Your task to perform on an android device: What's on my calendar today? Image 0: 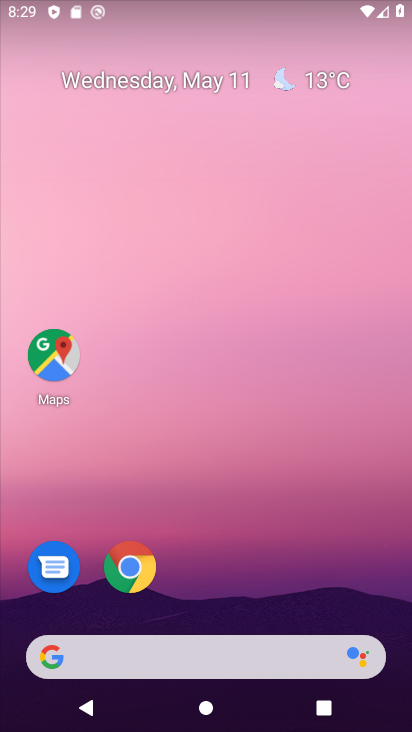
Step 0: drag from (200, 601) to (265, 128)
Your task to perform on an android device: What's on my calendar today? Image 1: 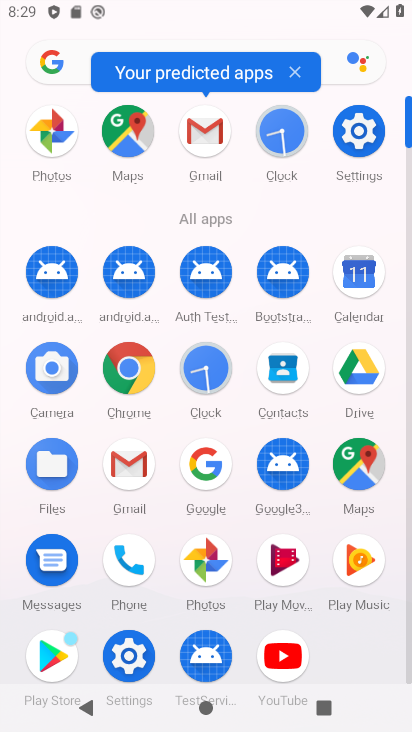
Step 1: click (383, 281)
Your task to perform on an android device: What's on my calendar today? Image 2: 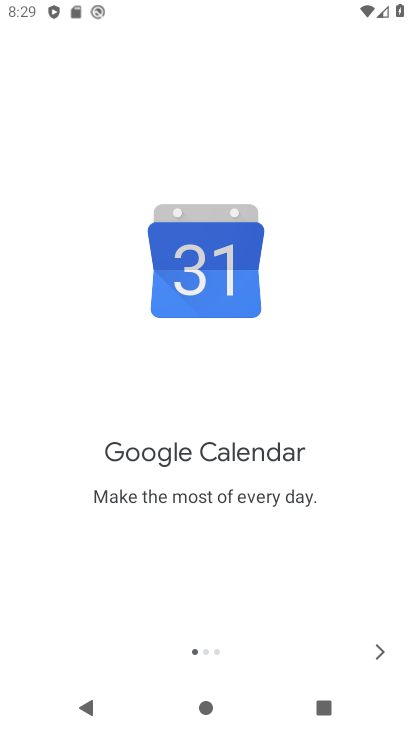
Step 2: click (377, 656)
Your task to perform on an android device: What's on my calendar today? Image 3: 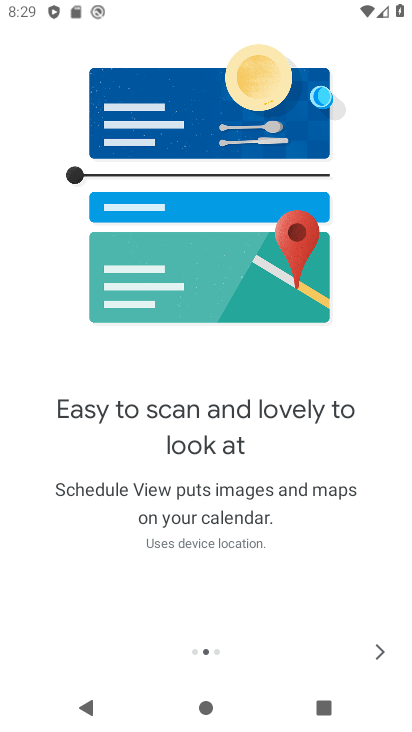
Step 3: click (377, 656)
Your task to perform on an android device: What's on my calendar today? Image 4: 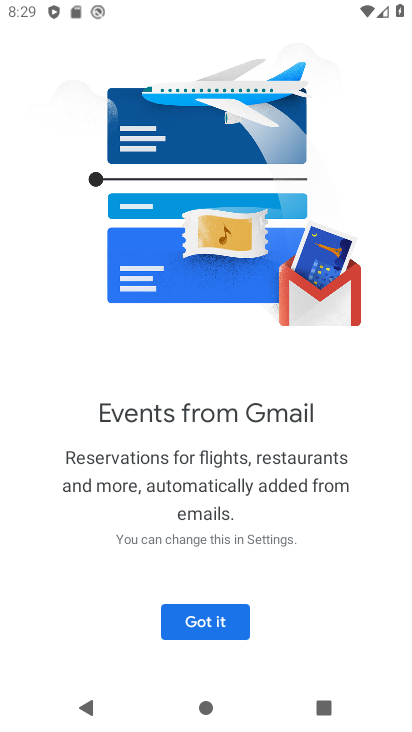
Step 4: click (222, 625)
Your task to perform on an android device: What's on my calendar today? Image 5: 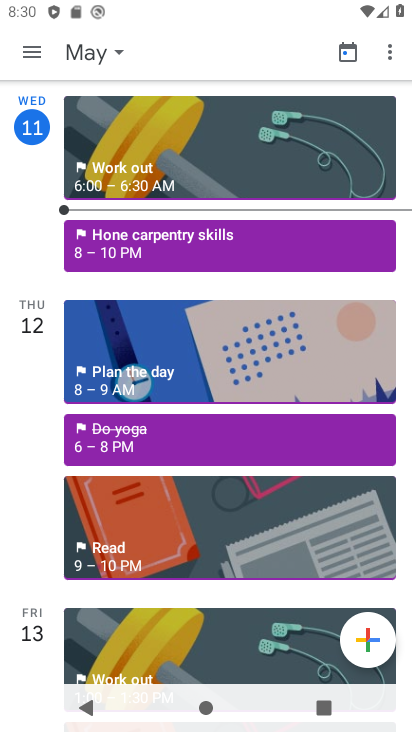
Step 5: click (28, 54)
Your task to perform on an android device: What's on my calendar today? Image 6: 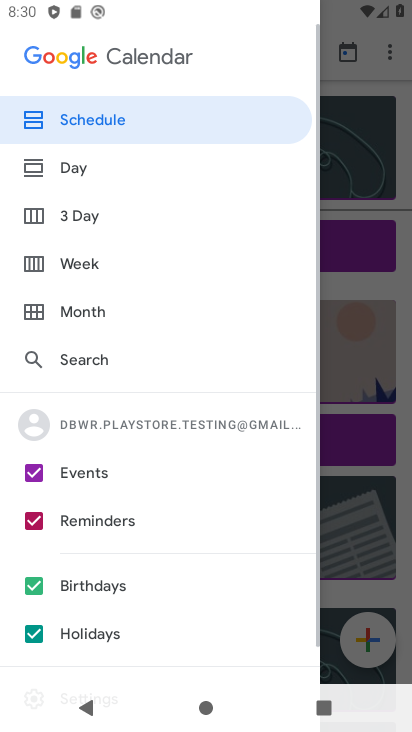
Step 6: click (78, 170)
Your task to perform on an android device: What's on my calendar today? Image 7: 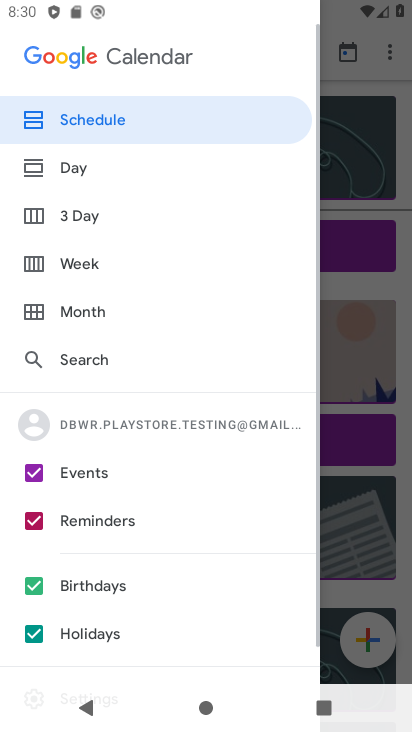
Step 7: click (64, 168)
Your task to perform on an android device: What's on my calendar today? Image 8: 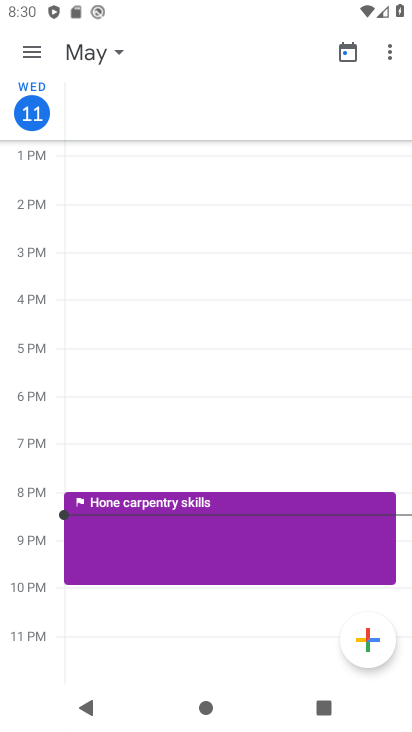
Step 8: task complete